Your task to perform on an android device: Open privacy settings Image 0: 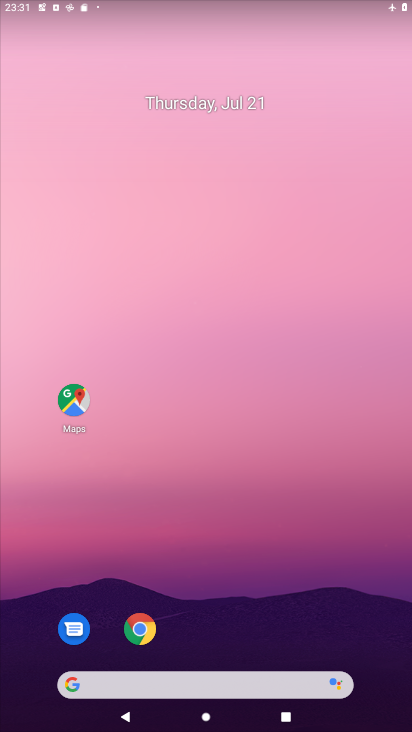
Step 0: drag from (237, 152) to (251, 67)
Your task to perform on an android device: Open privacy settings Image 1: 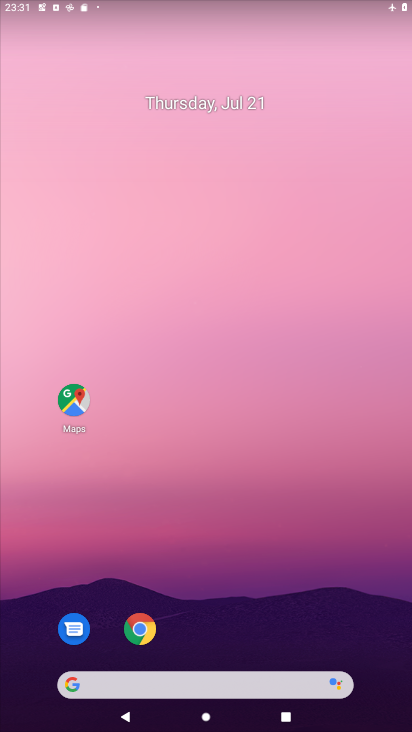
Step 1: drag from (243, 487) to (239, 27)
Your task to perform on an android device: Open privacy settings Image 2: 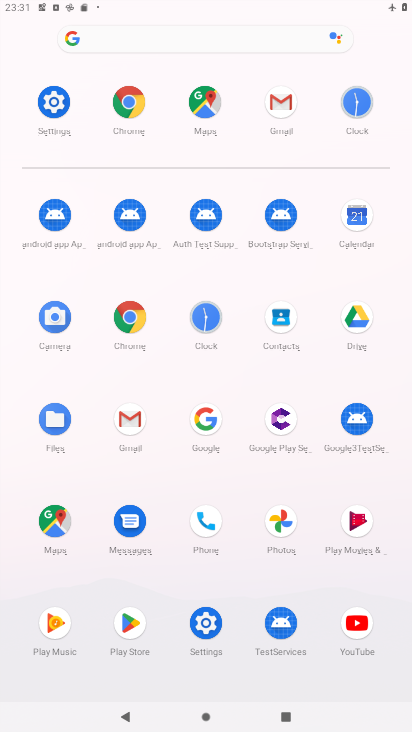
Step 2: click (53, 117)
Your task to perform on an android device: Open privacy settings Image 3: 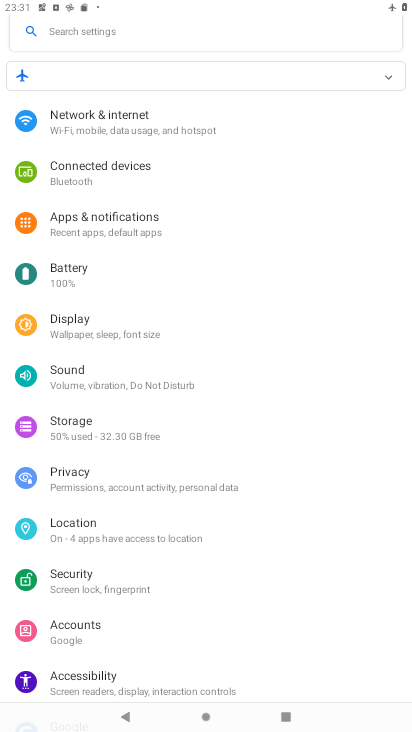
Step 3: click (109, 480)
Your task to perform on an android device: Open privacy settings Image 4: 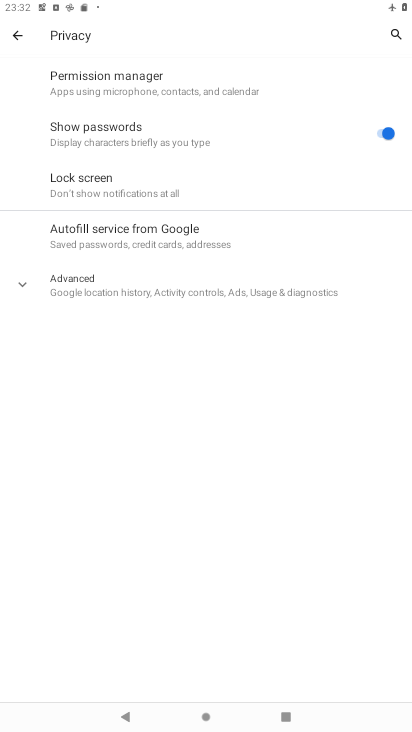
Step 4: task complete